Your task to perform on an android device: Open privacy settings Image 0: 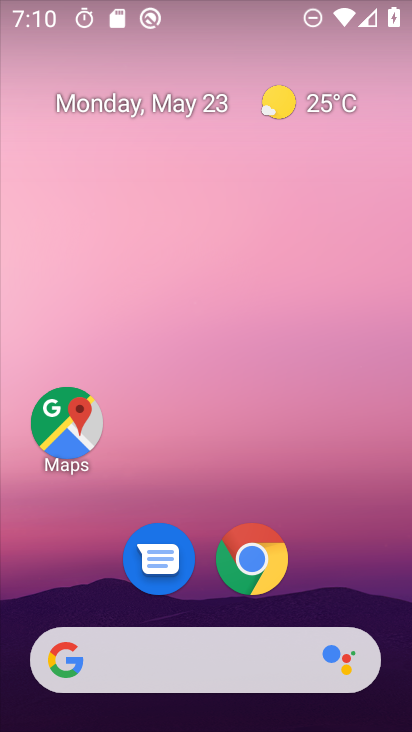
Step 0: drag from (403, 649) to (245, 51)
Your task to perform on an android device: Open privacy settings Image 1: 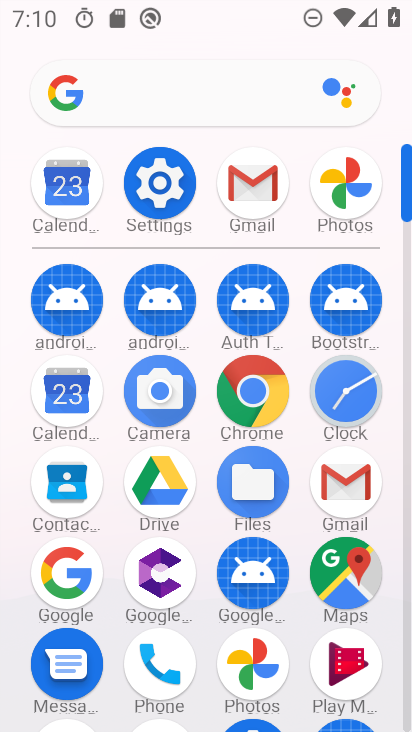
Step 1: click (163, 203)
Your task to perform on an android device: Open privacy settings Image 2: 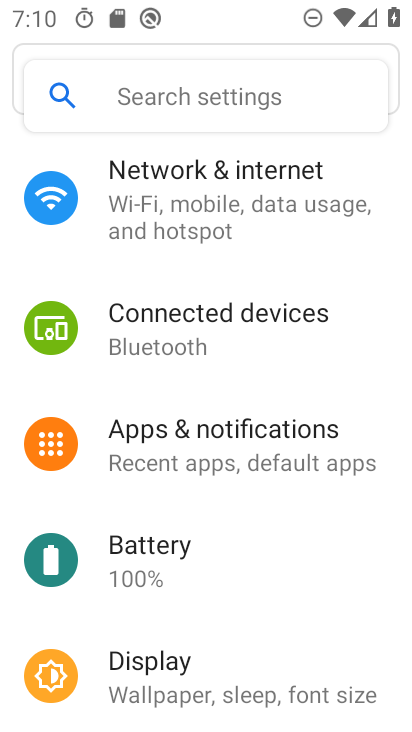
Step 2: drag from (203, 657) to (289, 166)
Your task to perform on an android device: Open privacy settings Image 3: 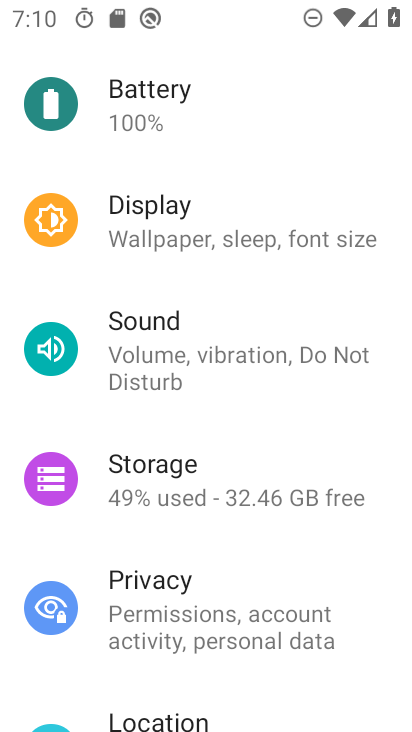
Step 3: click (197, 643)
Your task to perform on an android device: Open privacy settings Image 4: 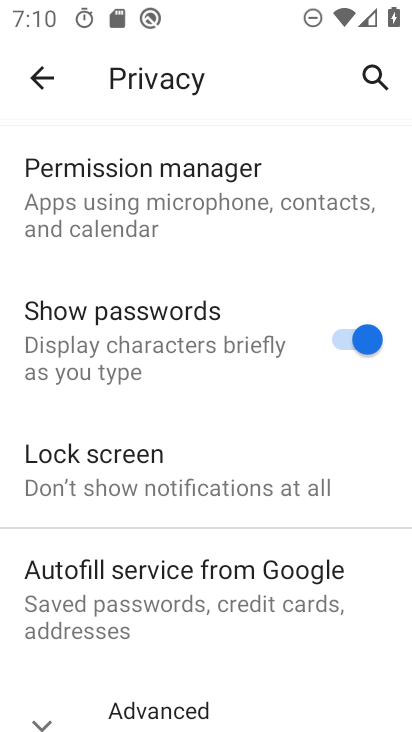
Step 4: task complete